Your task to perform on an android device: Open settings Image 0: 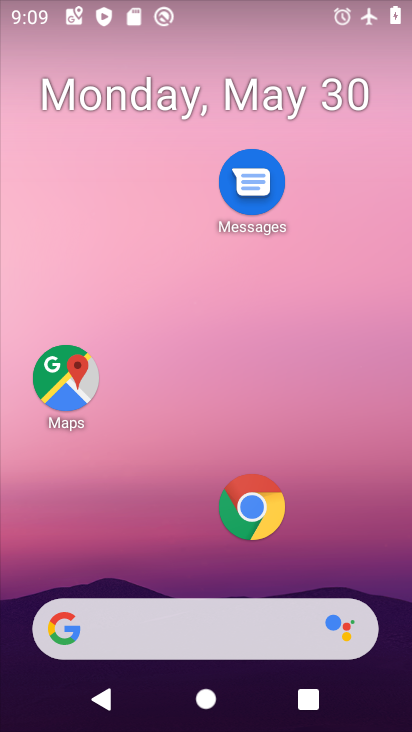
Step 0: drag from (191, 542) to (177, 21)
Your task to perform on an android device: Open settings Image 1: 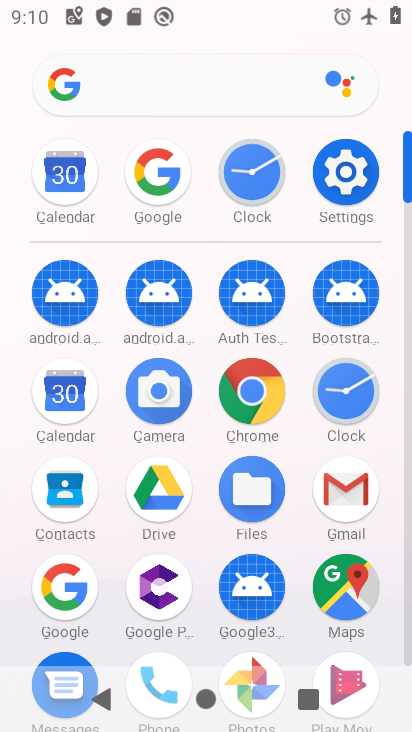
Step 1: click (334, 171)
Your task to perform on an android device: Open settings Image 2: 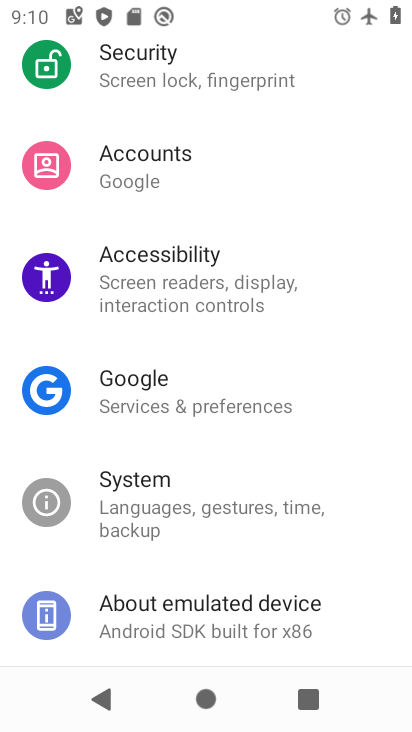
Step 2: task complete